Your task to perform on an android device: Open the phone app and click the voicemail tab. Image 0: 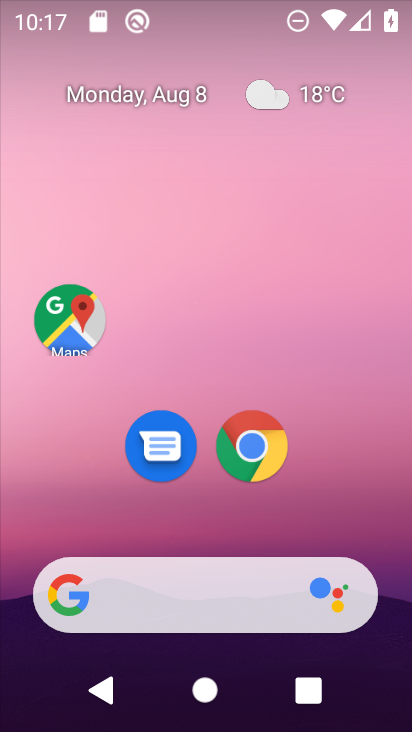
Step 0: drag from (385, 607) to (326, 174)
Your task to perform on an android device: Open the phone app and click the voicemail tab. Image 1: 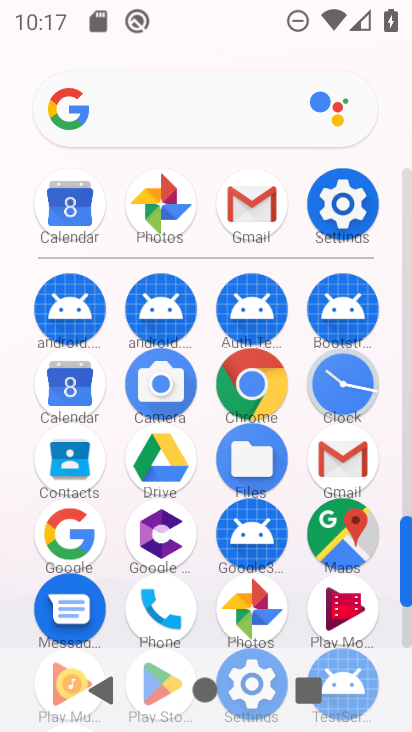
Step 1: click (158, 613)
Your task to perform on an android device: Open the phone app and click the voicemail tab. Image 2: 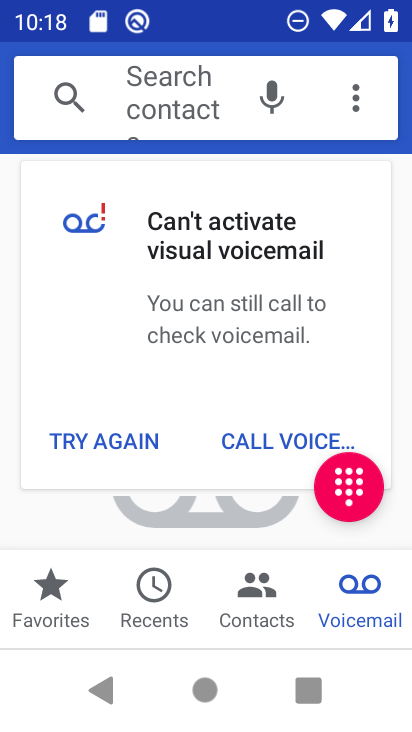
Step 2: task complete